Your task to perform on an android device: turn on priority inbox in the gmail app Image 0: 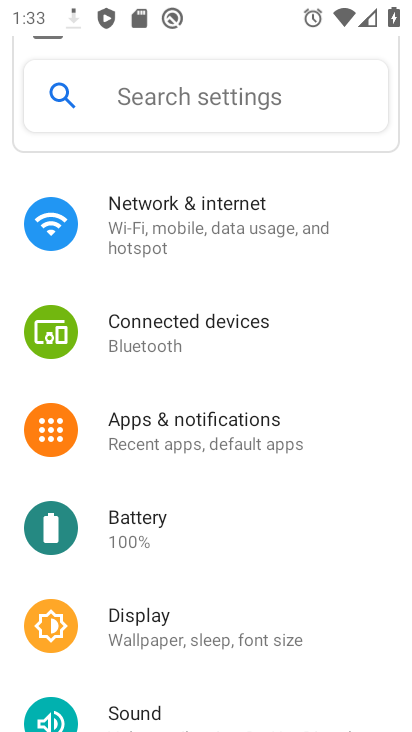
Step 0: press enter
Your task to perform on an android device: turn on priority inbox in the gmail app Image 1: 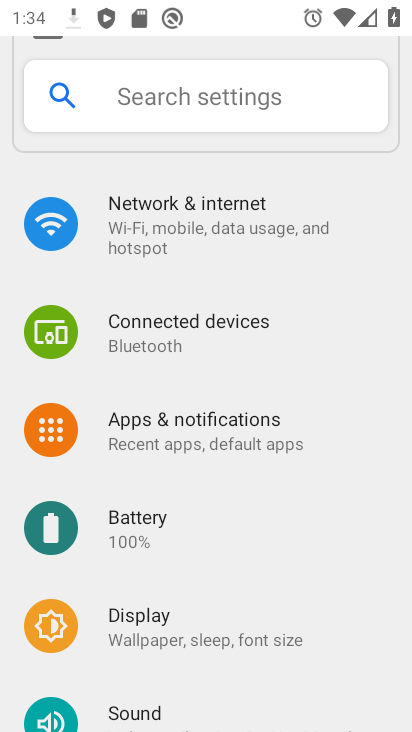
Step 1: press home button
Your task to perform on an android device: turn on priority inbox in the gmail app Image 2: 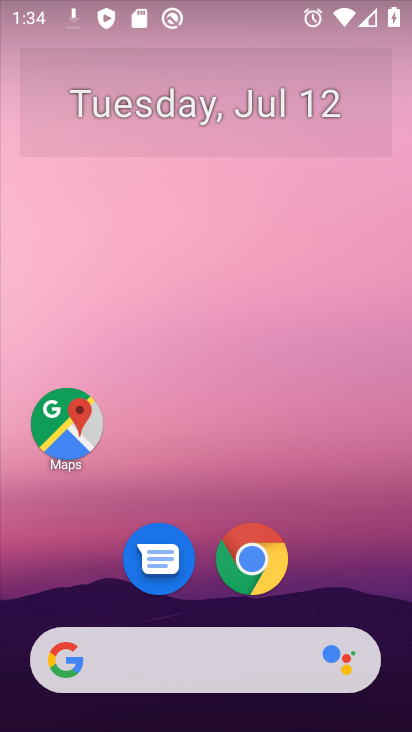
Step 2: drag from (336, 543) to (356, 129)
Your task to perform on an android device: turn on priority inbox in the gmail app Image 3: 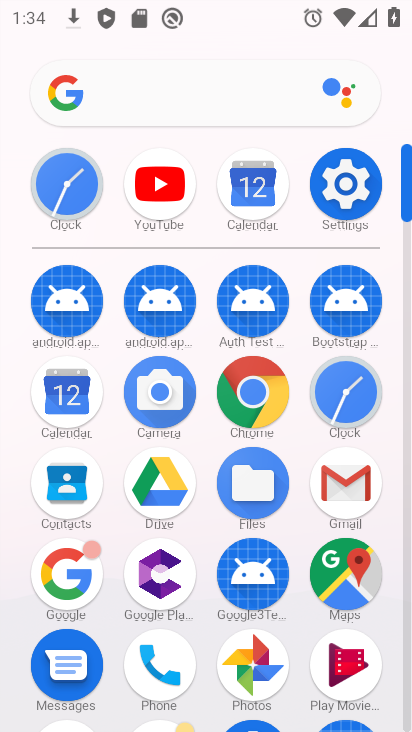
Step 3: click (353, 493)
Your task to perform on an android device: turn on priority inbox in the gmail app Image 4: 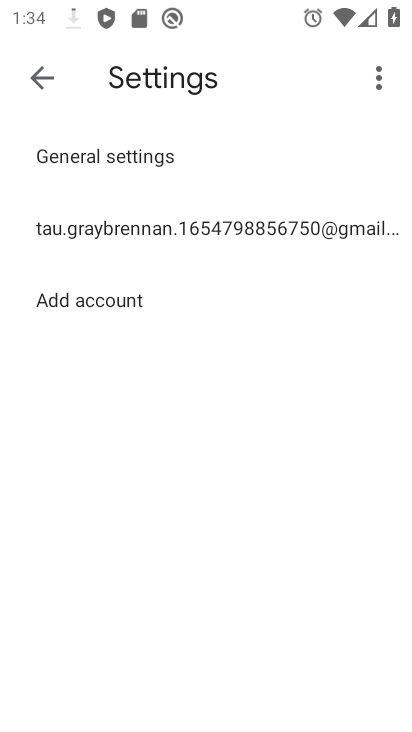
Step 4: click (255, 231)
Your task to perform on an android device: turn on priority inbox in the gmail app Image 5: 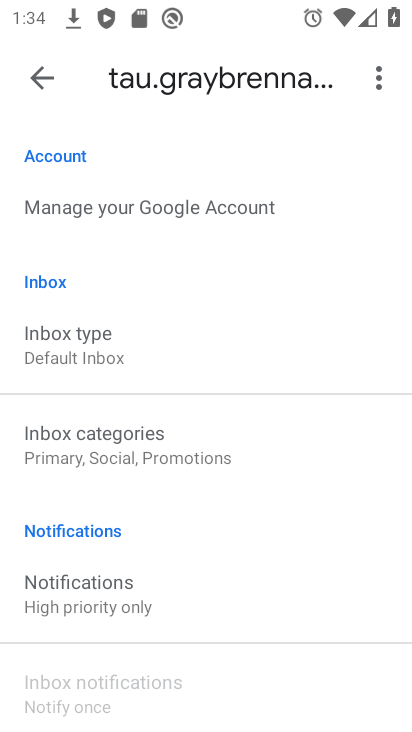
Step 5: drag from (316, 470) to (314, 257)
Your task to perform on an android device: turn on priority inbox in the gmail app Image 6: 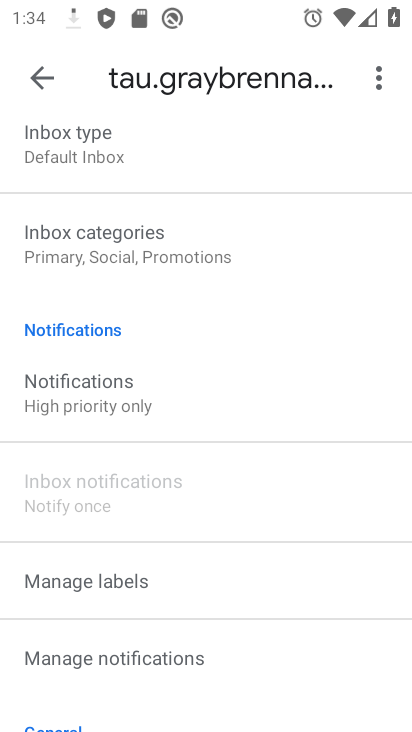
Step 6: drag from (315, 468) to (313, 270)
Your task to perform on an android device: turn on priority inbox in the gmail app Image 7: 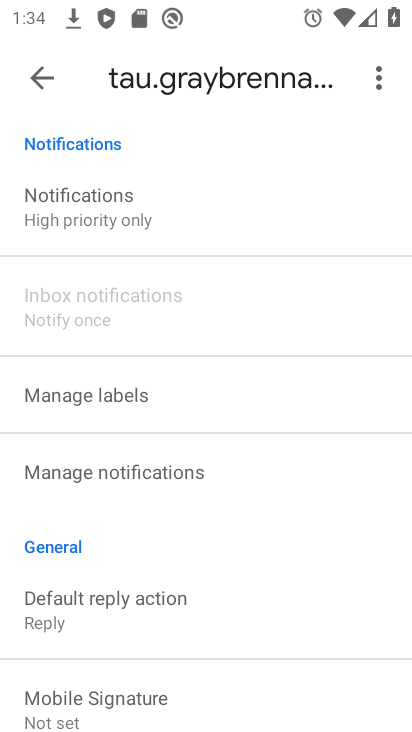
Step 7: drag from (311, 492) to (306, 315)
Your task to perform on an android device: turn on priority inbox in the gmail app Image 8: 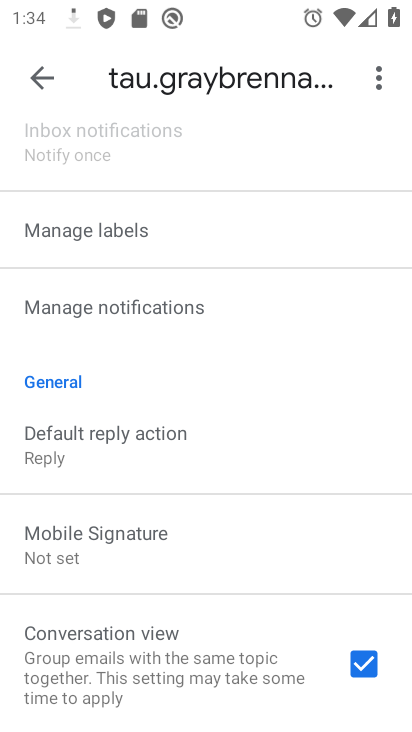
Step 8: drag from (309, 536) to (312, 341)
Your task to perform on an android device: turn on priority inbox in the gmail app Image 9: 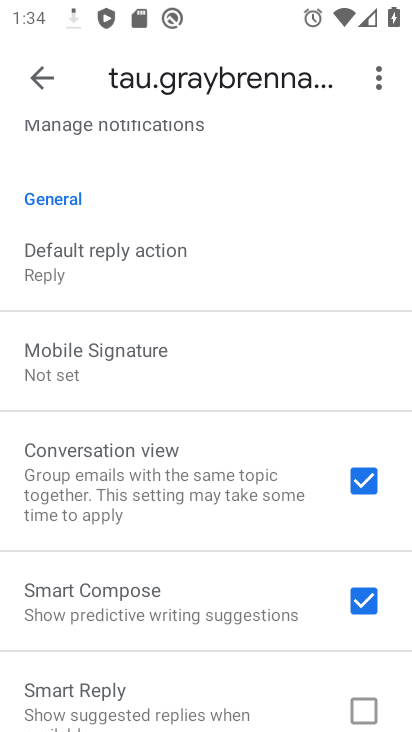
Step 9: drag from (298, 282) to (289, 406)
Your task to perform on an android device: turn on priority inbox in the gmail app Image 10: 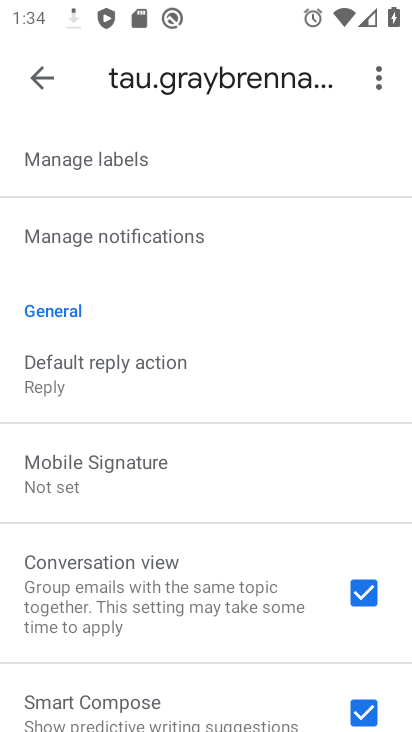
Step 10: drag from (291, 254) to (277, 380)
Your task to perform on an android device: turn on priority inbox in the gmail app Image 11: 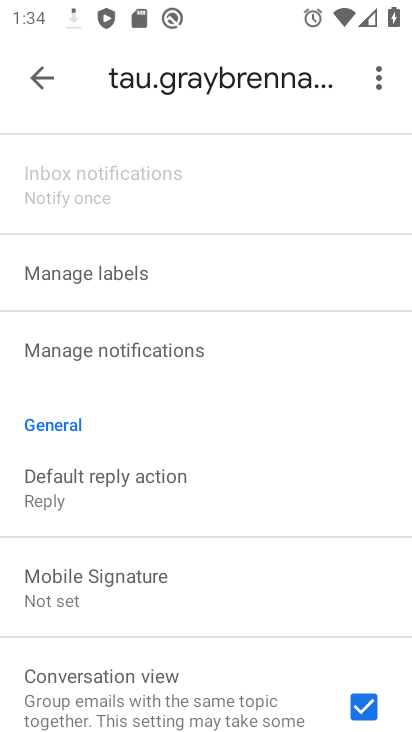
Step 11: drag from (287, 217) to (290, 353)
Your task to perform on an android device: turn on priority inbox in the gmail app Image 12: 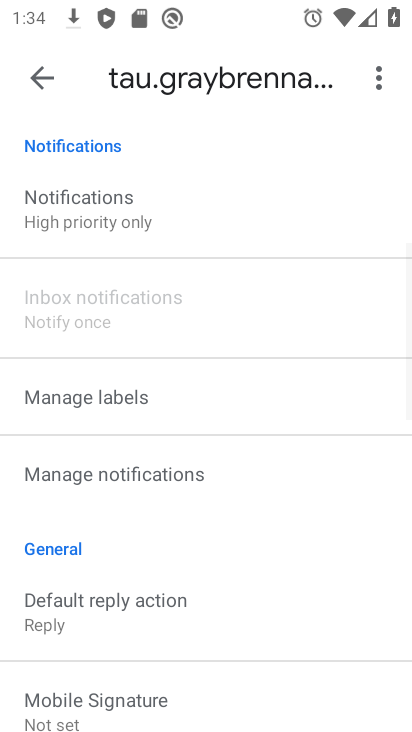
Step 12: drag from (292, 224) to (294, 368)
Your task to perform on an android device: turn on priority inbox in the gmail app Image 13: 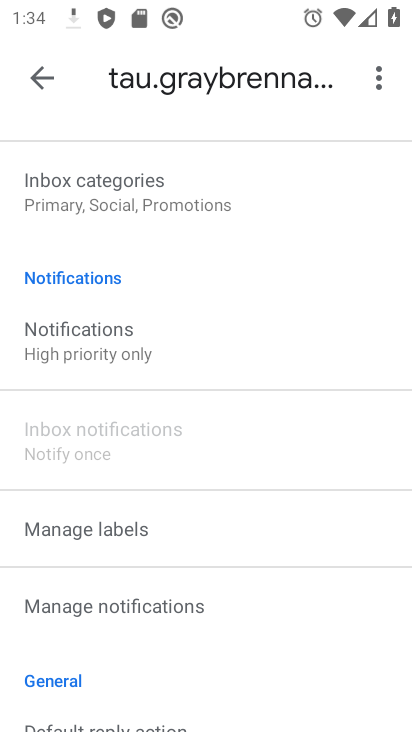
Step 13: drag from (295, 257) to (302, 417)
Your task to perform on an android device: turn on priority inbox in the gmail app Image 14: 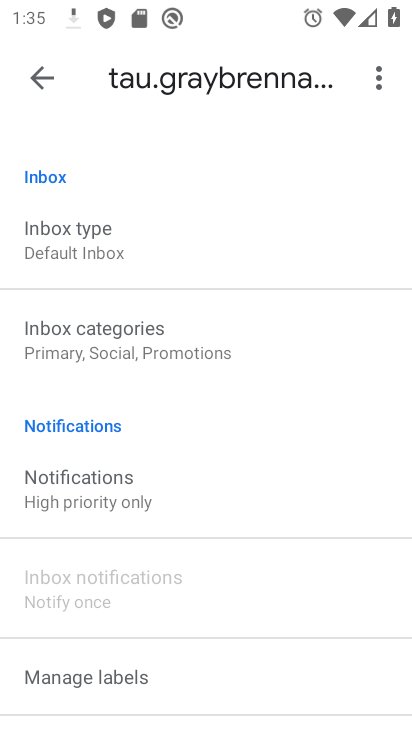
Step 14: drag from (291, 238) to (297, 427)
Your task to perform on an android device: turn on priority inbox in the gmail app Image 15: 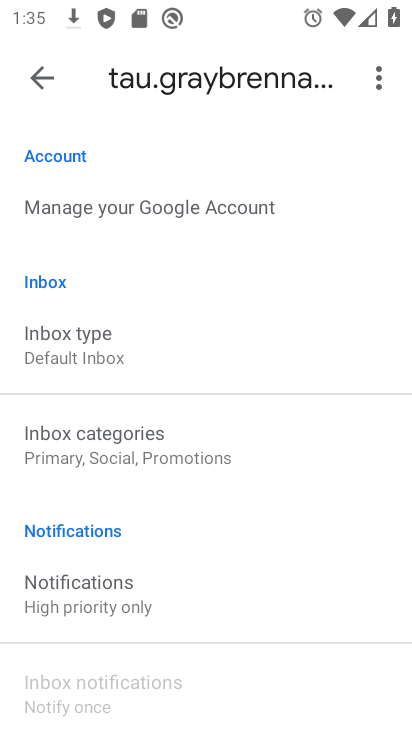
Step 15: click (80, 334)
Your task to perform on an android device: turn on priority inbox in the gmail app Image 16: 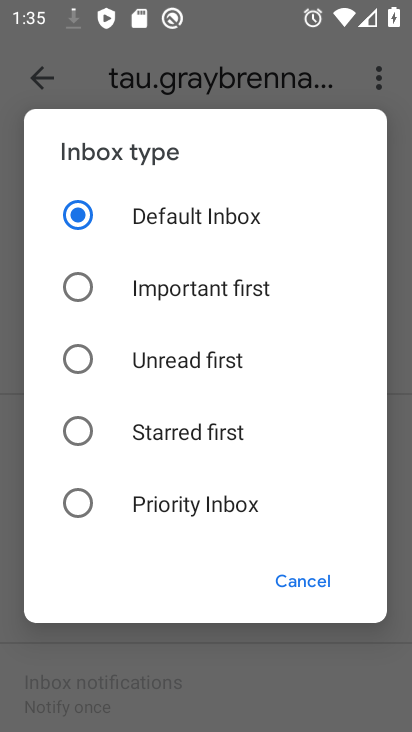
Step 16: click (205, 495)
Your task to perform on an android device: turn on priority inbox in the gmail app Image 17: 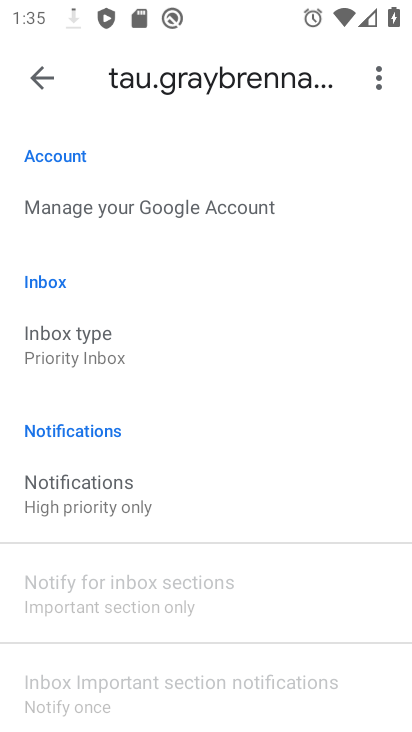
Step 17: task complete